Your task to perform on an android device: Search for usb-c to usb-a on ebay.com, select the first entry, and add it to the cart. Image 0: 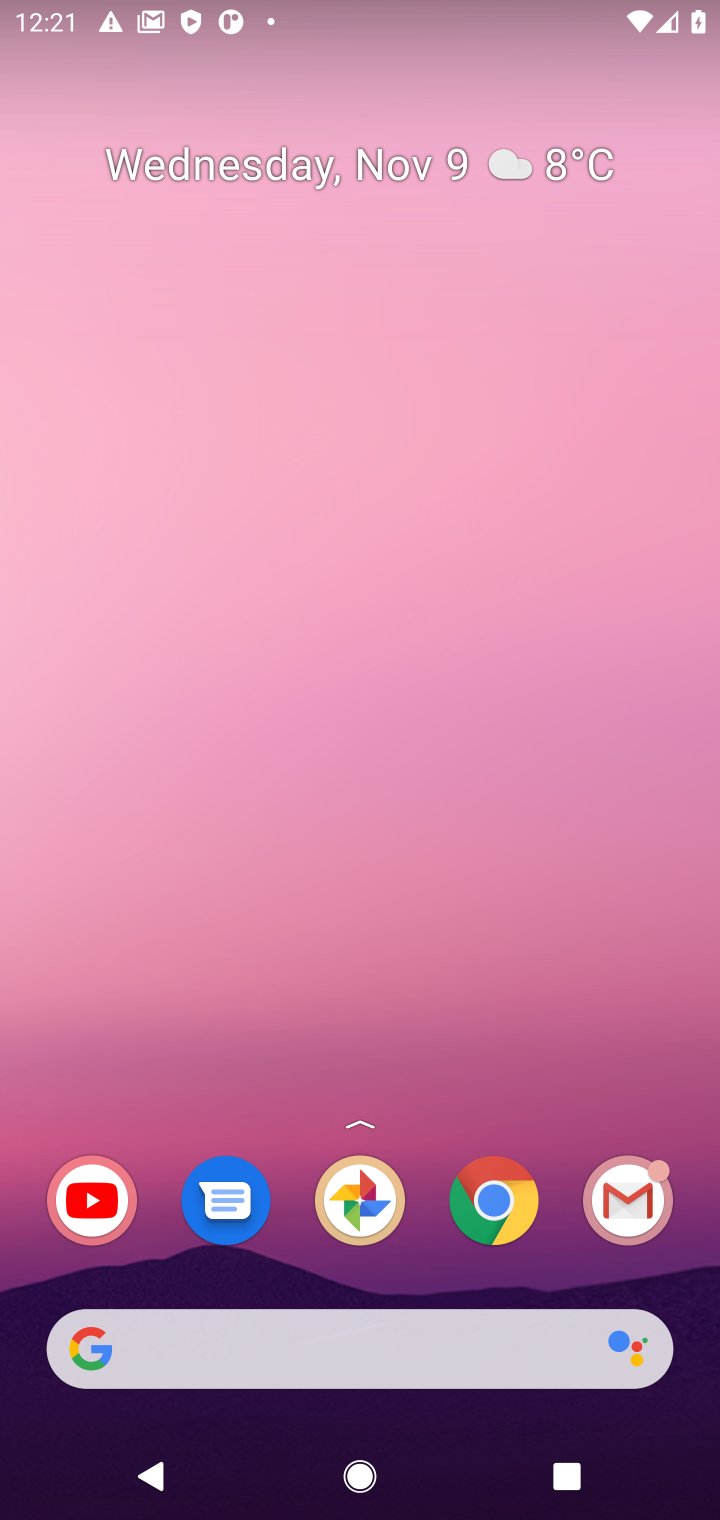
Step 0: click (219, 1340)
Your task to perform on an android device: Search for usb-c to usb-a on ebay.com, select the first entry, and add it to the cart. Image 1: 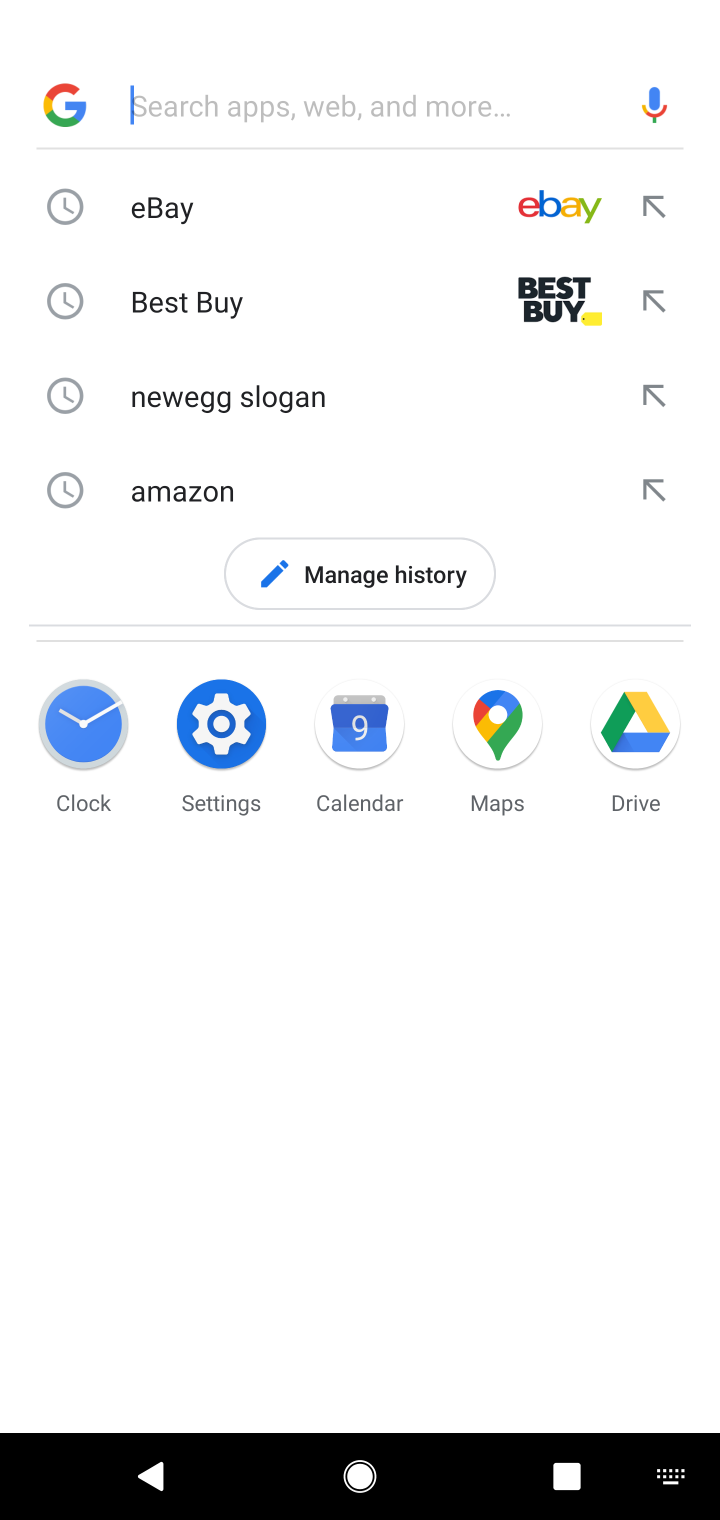
Step 1: type "ebay.com"
Your task to perform on an android device: Search for usb-c to usb-a on ebay.com, select the first entry, and add it to the cart. Image 2: 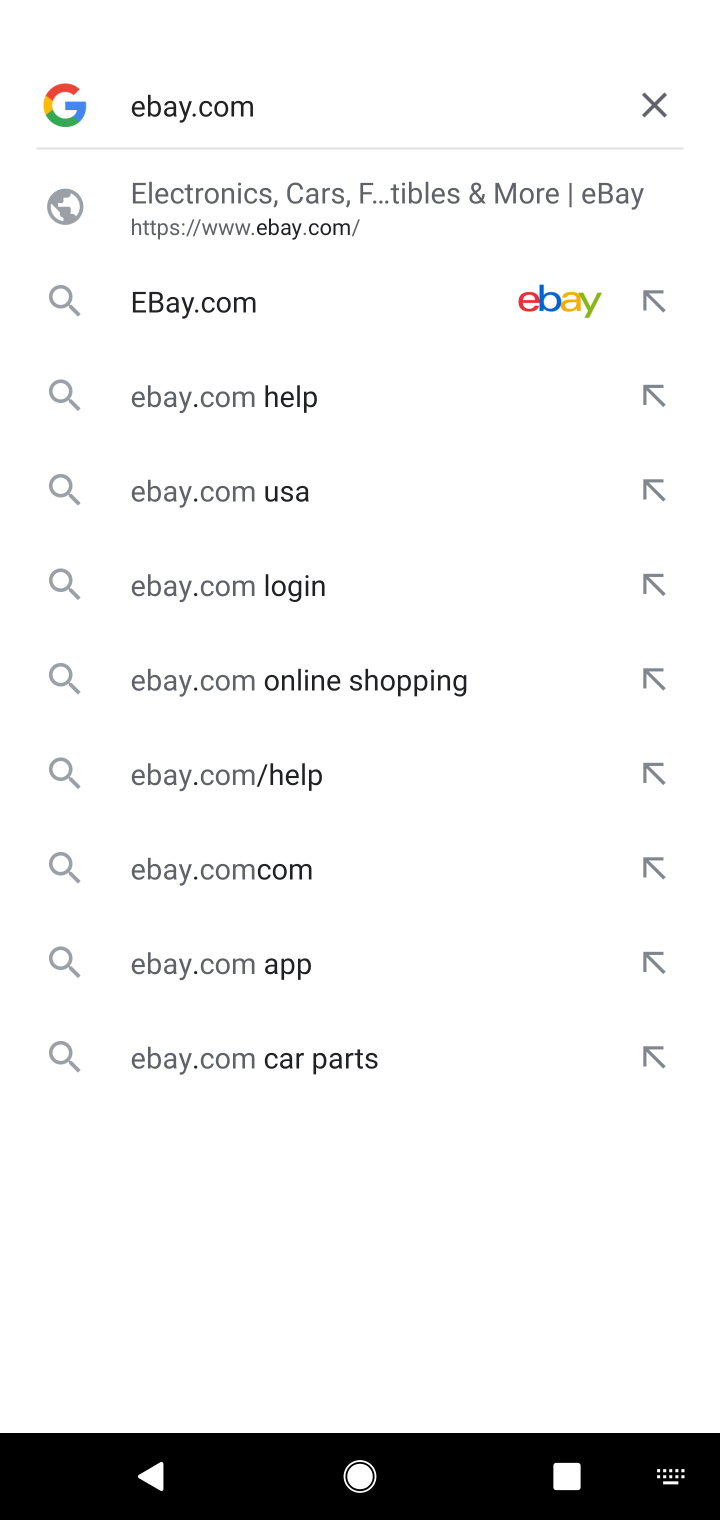
Step 2: click (260, 306)
Your task to perform on an android device: Search for usb-c to usb-a on ebay.com, select the first entry, and add it to the cart. Image 3: 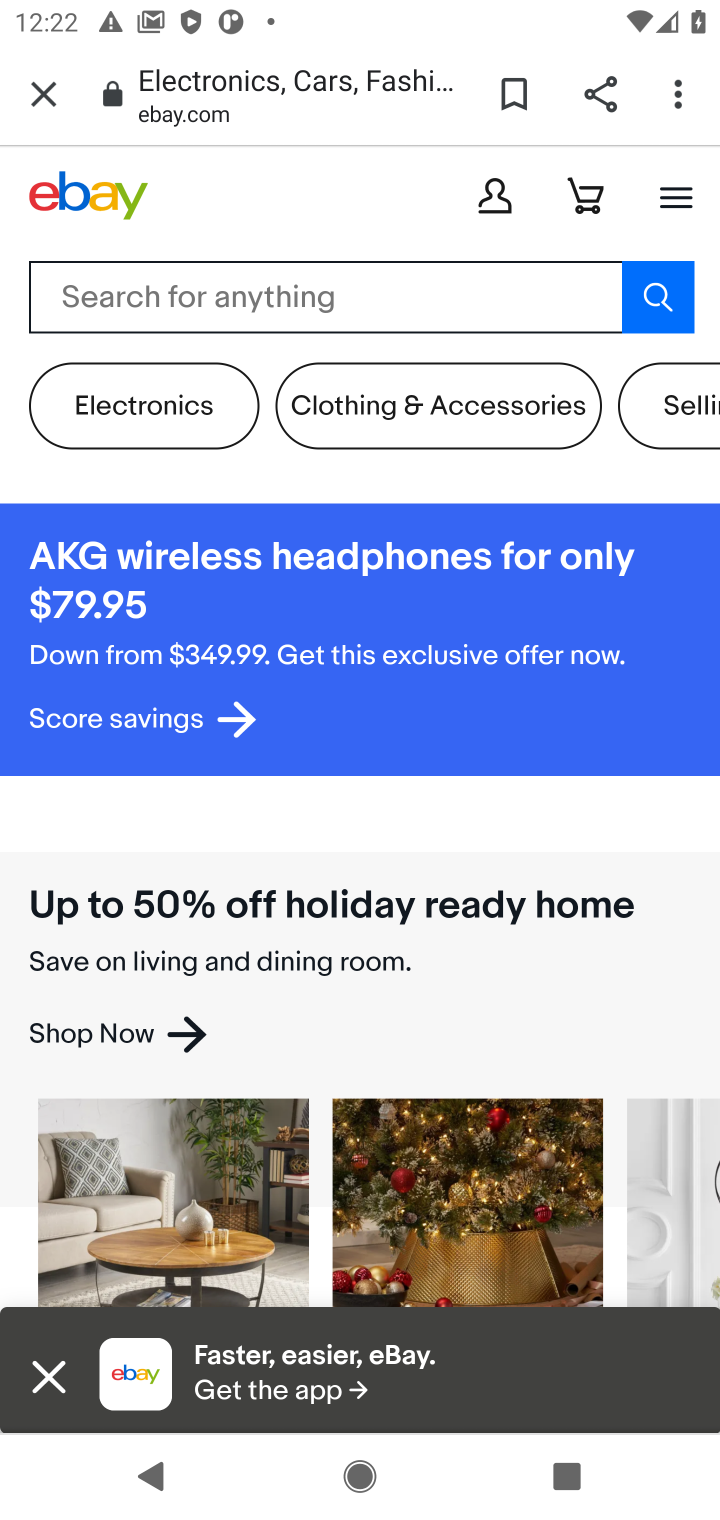
Step 3: task complete